Your task to perform on an android device: set default search engine in the chrome app Image 0: 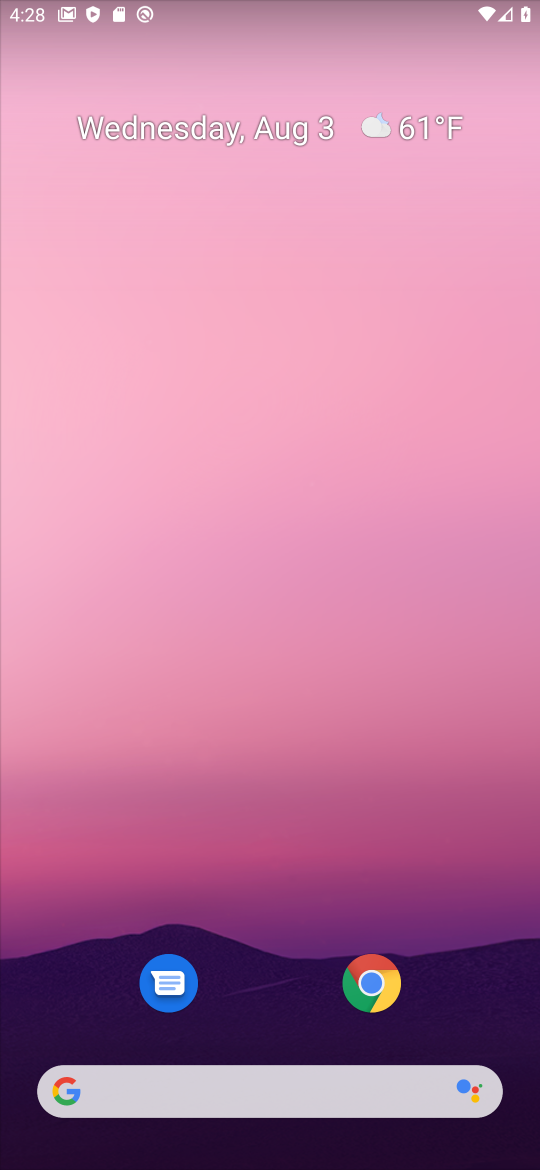
Step 0: press home button
Your task to perform on an android device: set default search engine in the chrome app Image 1: 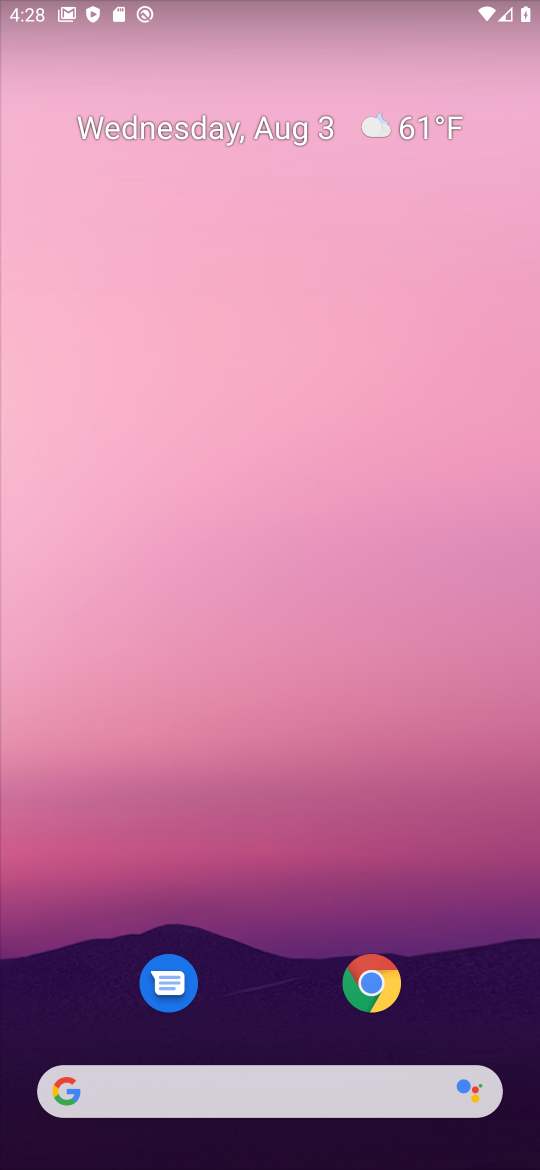
Step 1: drag from (302, 752) to (399, 163)
Your task to perform on an android device: set default search engine in the chrome app Image 2: 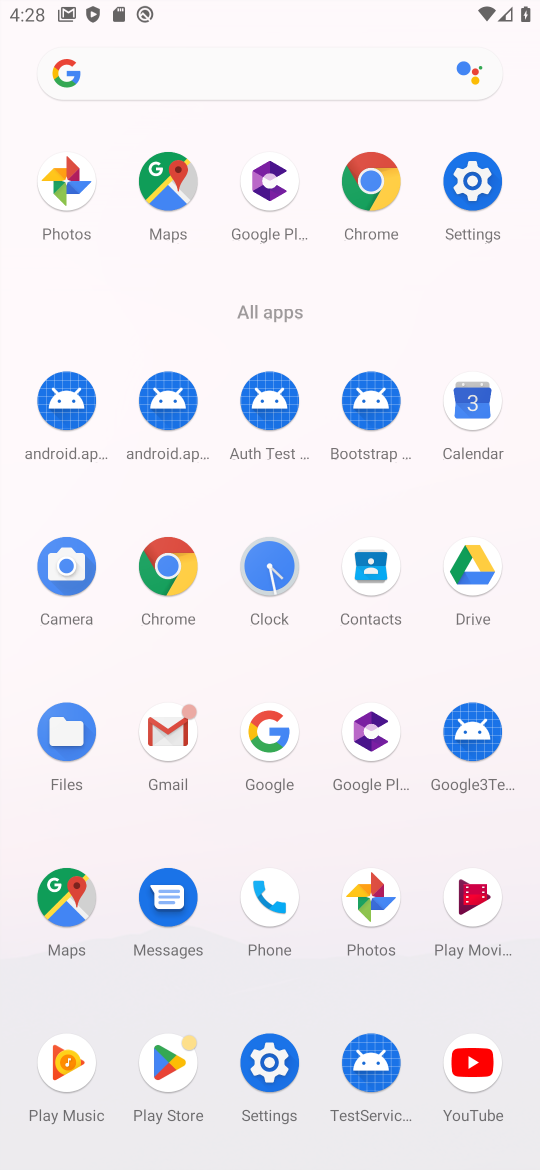
Step 2: click (376, 177)
Your task to perform on an android device: set default search engine in the chrome app Image 3: 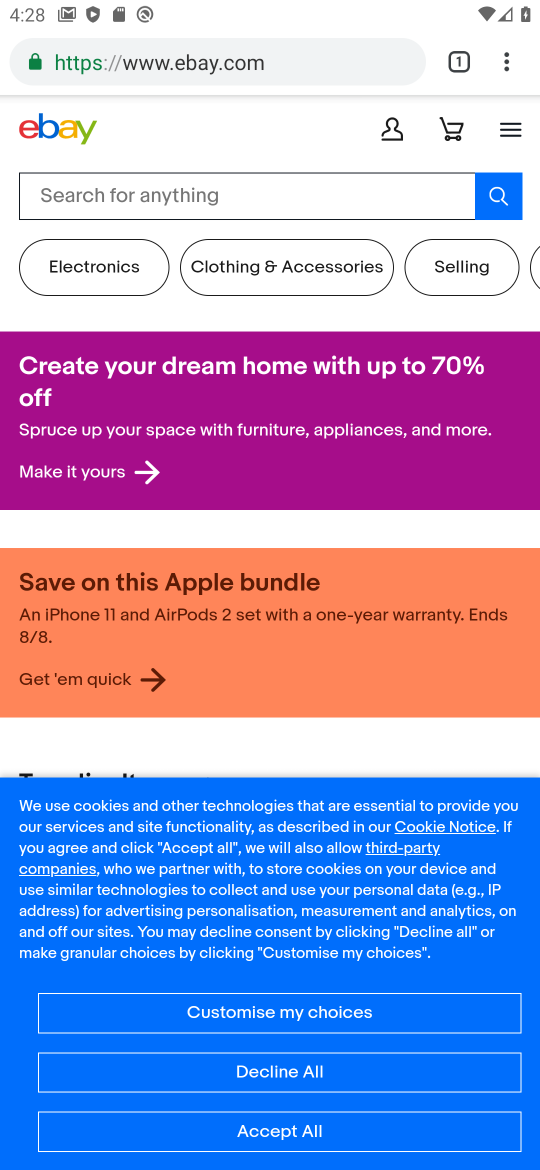
Step 3: drag from (509, 65) to (320, 740)
Your task to perform on an android device: set default search engine in the chrome app Image 4: 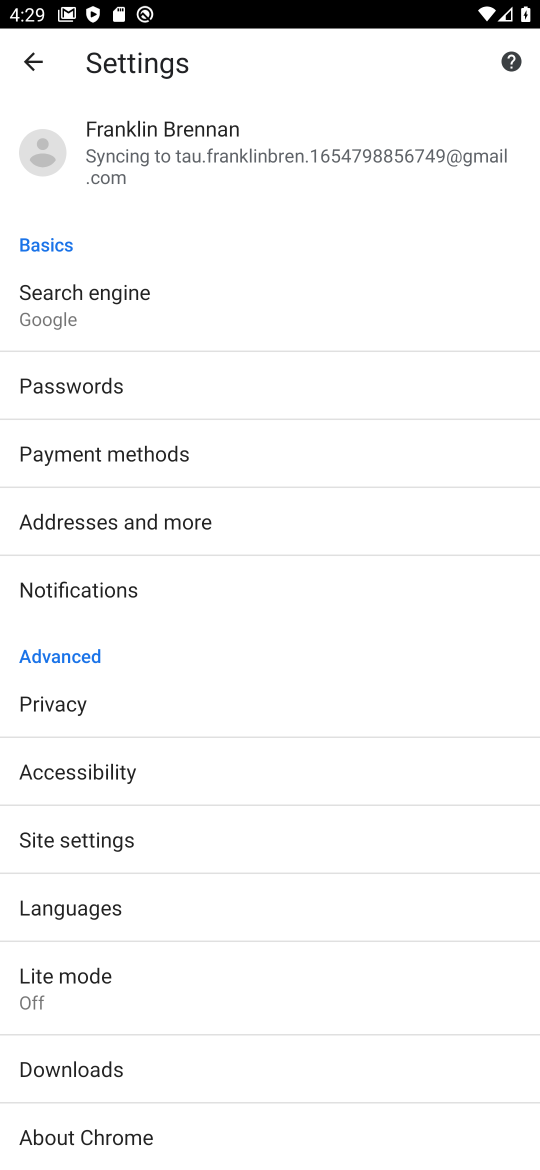
Step 4: click (95, 317)
Your task to perform on an android device: set default search engine in the chrome app Image 5: 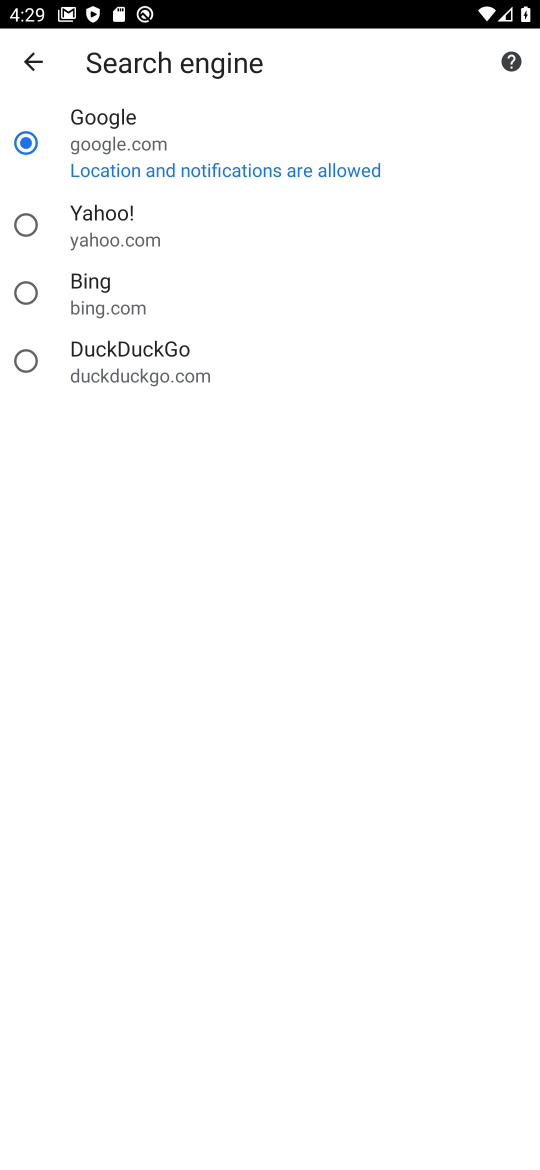
Step 5: task complete